Your task to perform on an android device: check out phone information Image 0: 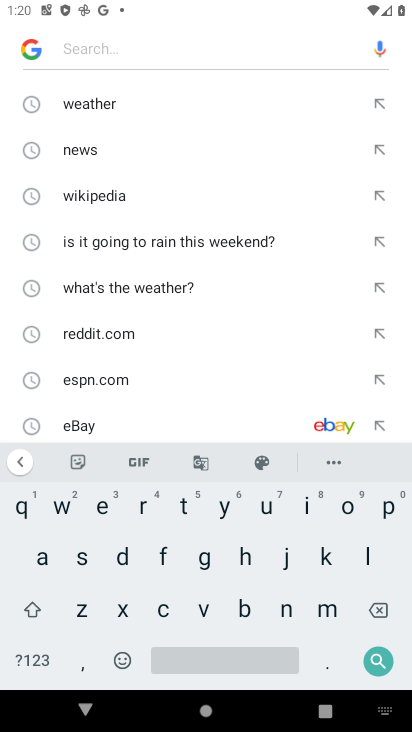
Step 0: press home button
Your task to perform on an android device: check out phone information Image 1: 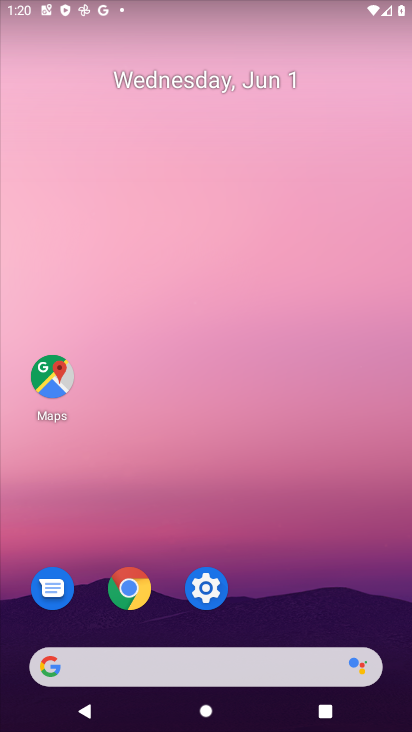
Step 1: click (216, 586)
Your task to perform on an android device: check out phone information Image 2: 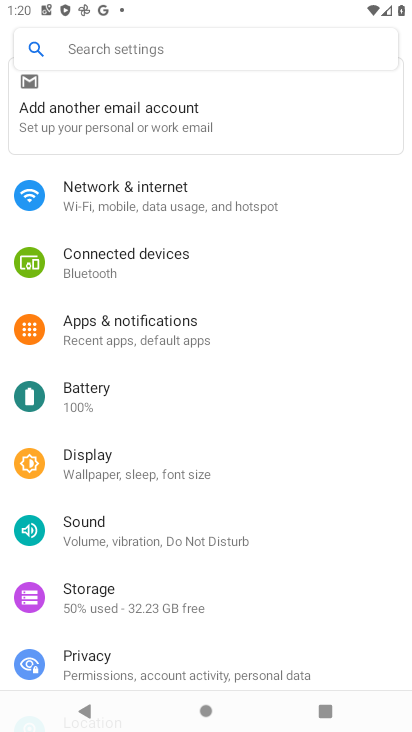
Step 2: click (76, 48)
Your task to perform on an android device: check out phone information Image 3: 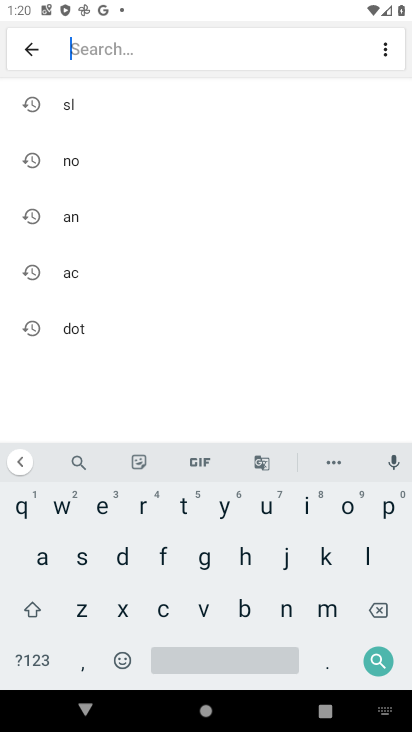
Step 3: click (39, 553)
Your task to perform on an android device: check out phone information Image 4: 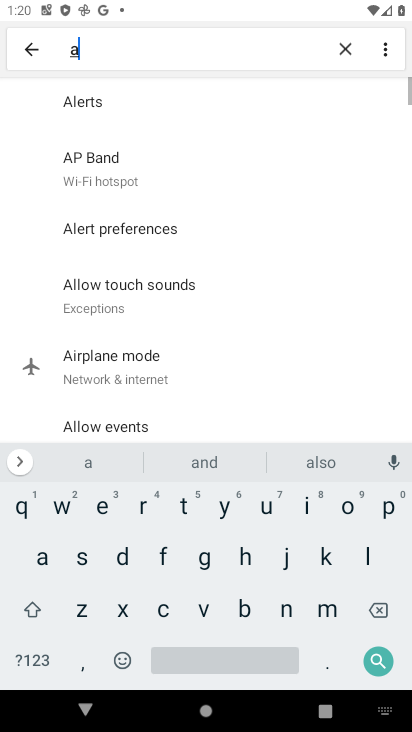
Step 4: click (243, 611)
Your task to perform on an android device: check out phone information Image 5: 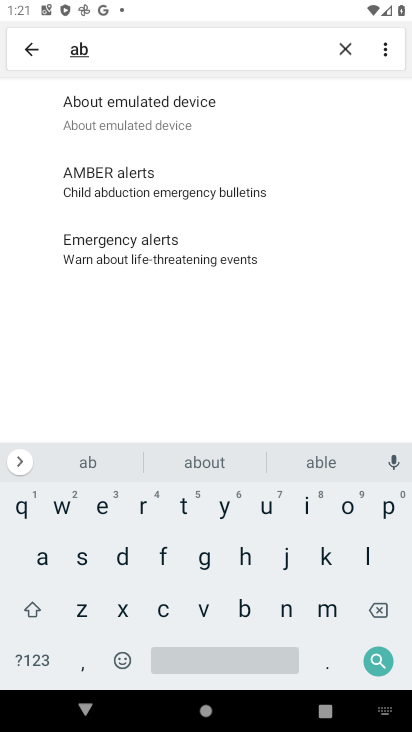
Step 5: click (157, 117)
Your task to perform on an android device: check out phone information Image 6: 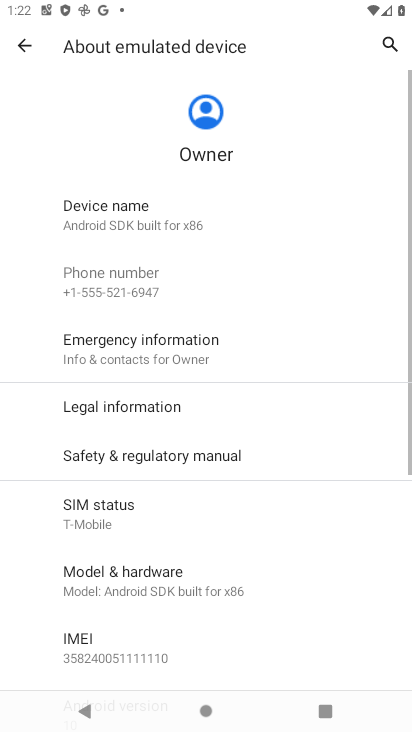
Step 6: task complete